Your task to perform on an android device: delete browsing data in the chrome app Image 0: 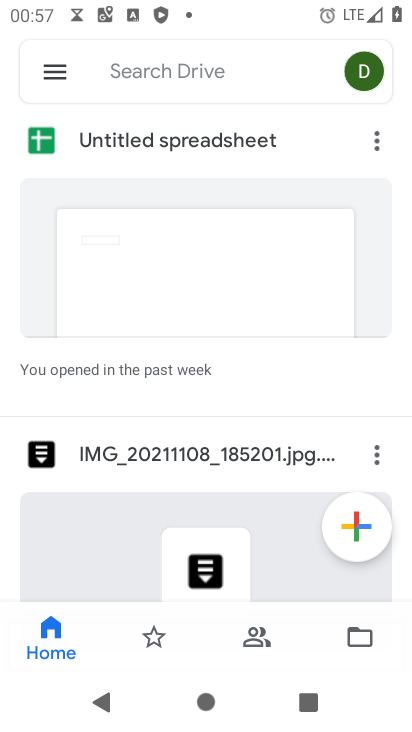
Step 0: press home button
Your task to perform on an android device: delete browsing data in the chrome app Image 1: 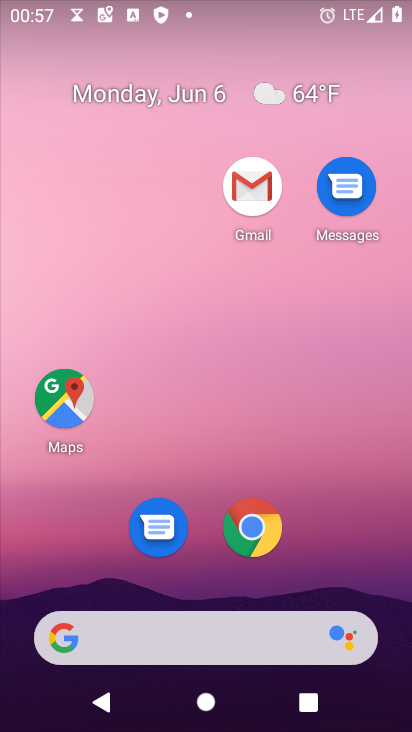
Step 1: click (268, 529)
Your task to perform on an android device: delete browsing data in the chrome app Image 2: 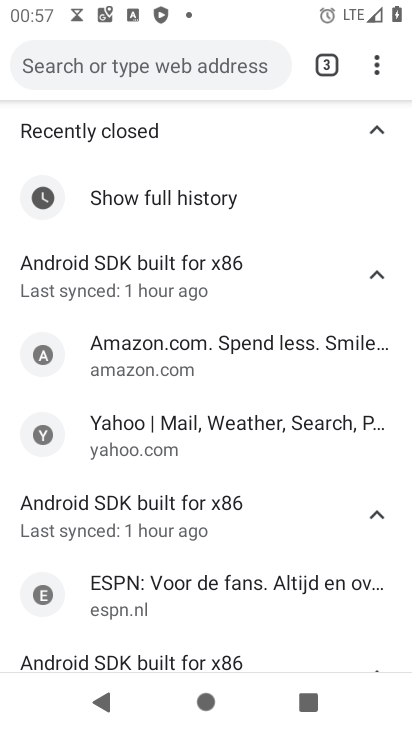
Step 2: click (381, 60)
Your task to perform on an android device: delete browsing data in the chrome app Image 3: 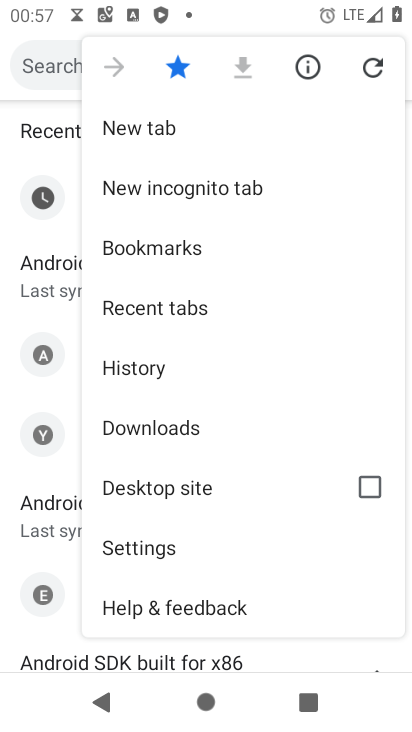
Step 3: click (188, 553)
Your task to perform on an android device: delete browsing data in the chrome app Image 4: 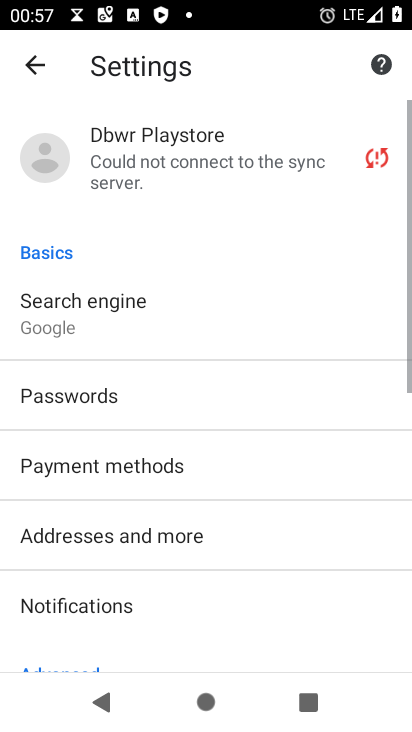
Step 4: drag from (186, 579) to (221, 118)
Your task to perform on an android device: delete browsing data in the chrome app Image 5: 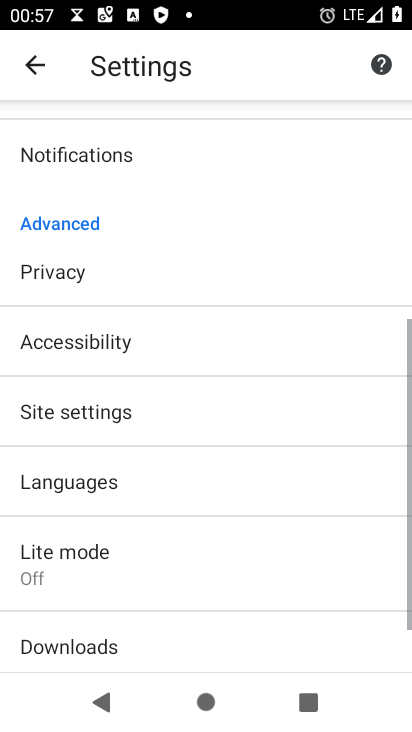
Step 5: drag from (164, 590) to (244, 103)
Your task to perform on an android device: delete browsing data in the chrome app Image 6: 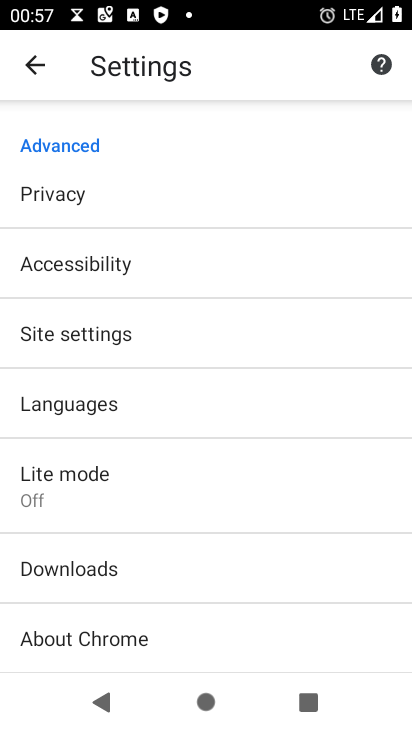
Step 6: click (126, 630)
Your task to perform on an android device: delete browsing data in the chrome app Image 7: 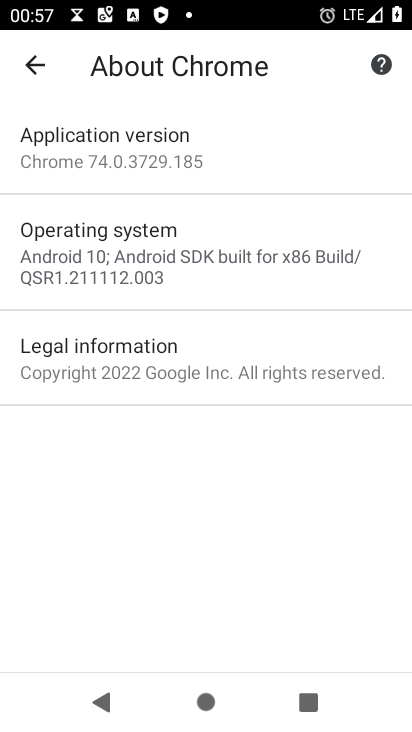
Step 7: click (34, 58)
Your task to perform on an android device: delete browsing data in the chrome app Image 8: 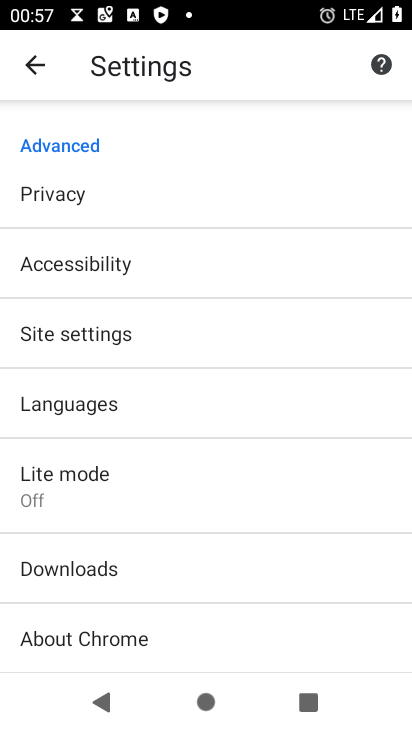
Step 8: click (123, 189)
Your task to perform on an android device: delete browsing data in the chrome app Image 9: 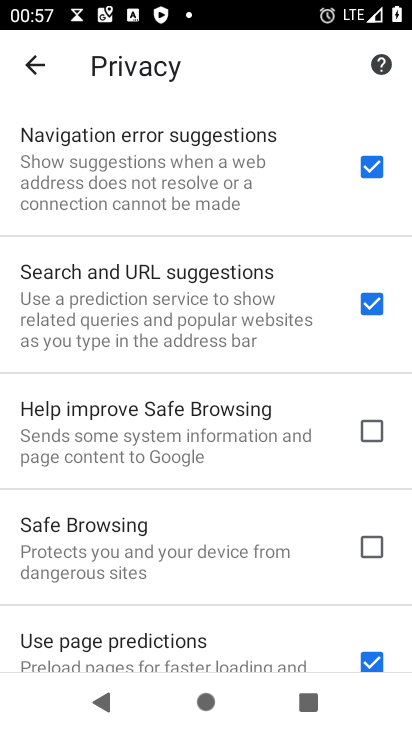
Step 9: drag from (173, 504) to (214, 141)
Your task to perform on an android device: delete browsing data in the chrome app Image 10: 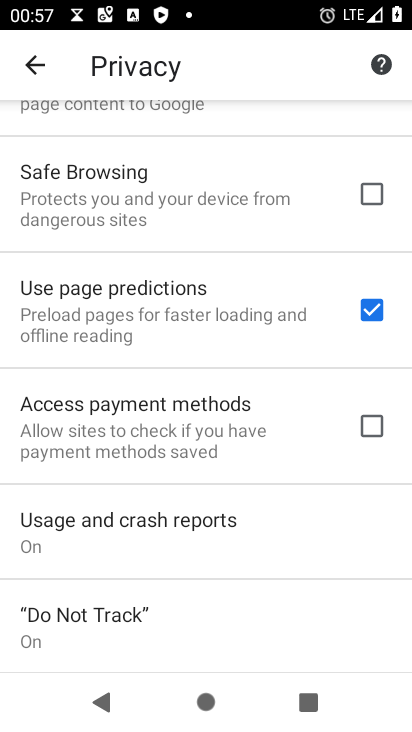
Step 10: drag from (208, 536) to (222, 171)
Your task to perform on an android device: delete browsing data in the chrome app Image 11: 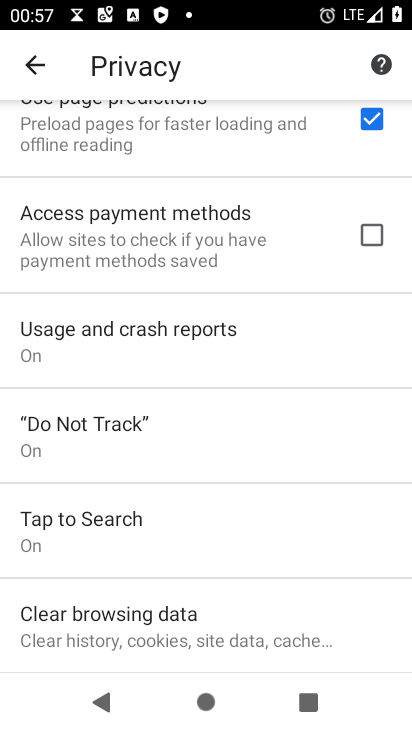
Step 11: click (131, 615)
Your task to perform on an android device: delete browsing data in the chrome app Image 12: 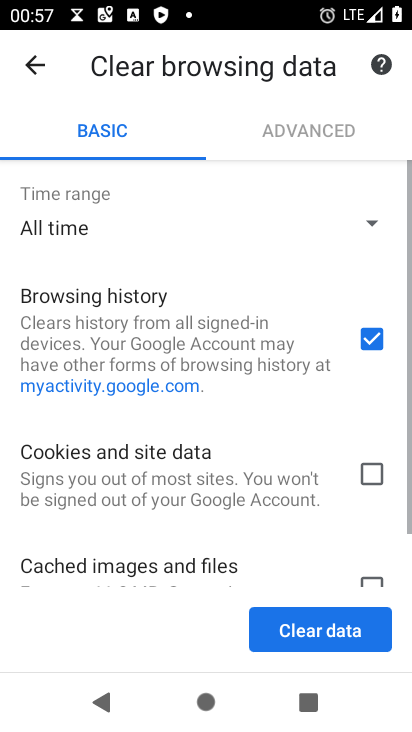
Step 12: click (316, 625)
Your task to perform on an android device: delete browsing data in the chrome app Image 13: 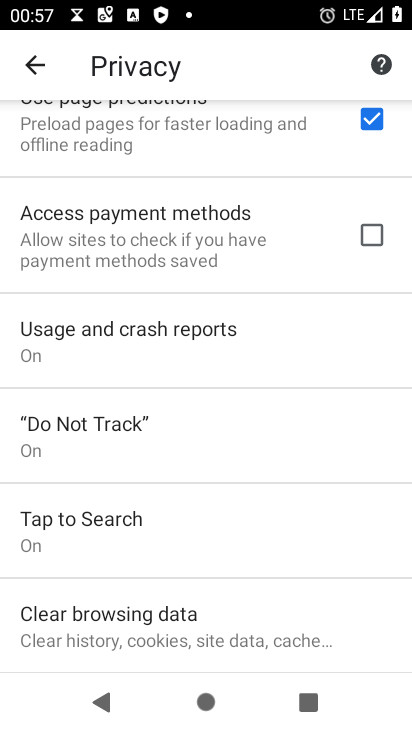
Step 13: task complete